Your task to perform on an android device: Open battery settings Image 0: 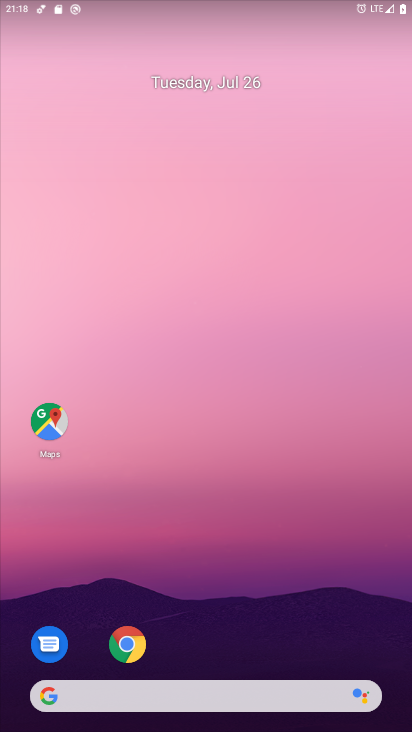
Step 0: drag from (208, 639) to (231, 206)
Your task to perform on an android device: Open battery settings Image 1: 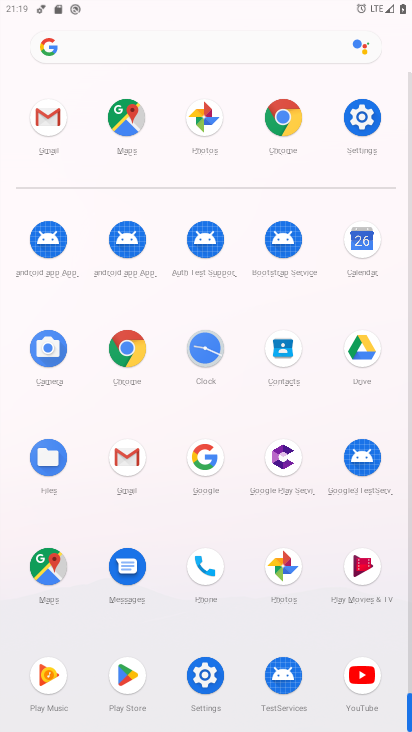
Step 1: click (375, 123)
Your task to perform on an android device: Open battery settings Image 2: 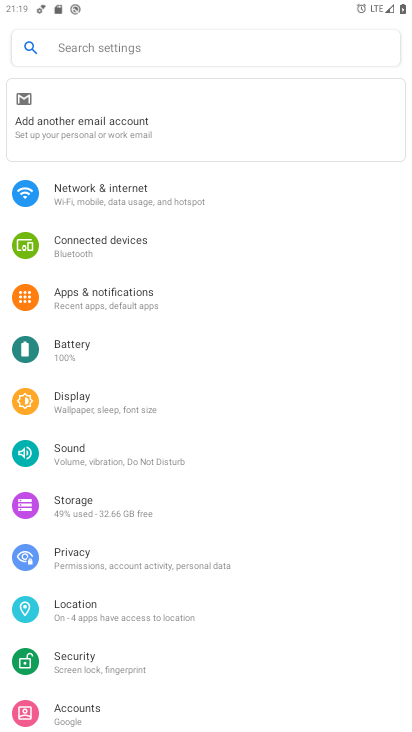
Step 2: click (79, 355)
Your task to perform on an android device: Open battery settings Image 3: 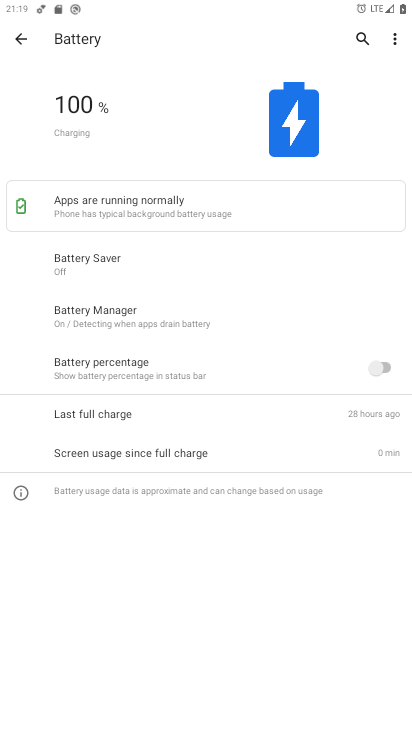
Step 3: task complete